Your task to perform on an android device: Open the Play Movies app and select the watchlist tab. Image 0: 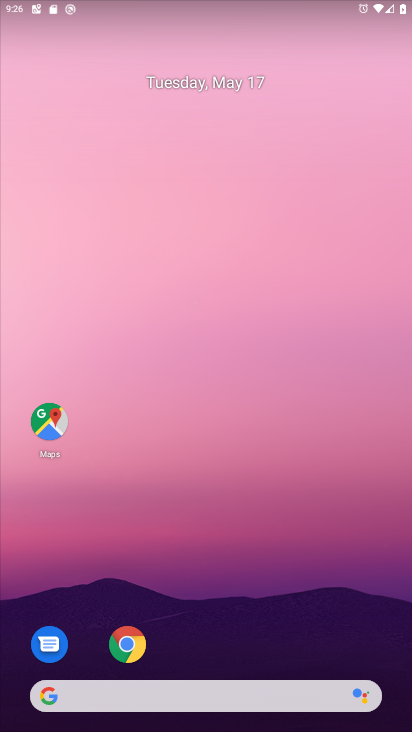
Step 0: drag from (209, 647) to (269, 34)
Your task to perform on an android device: Open the Play Movies app and select the watchlist tab. Image 1: 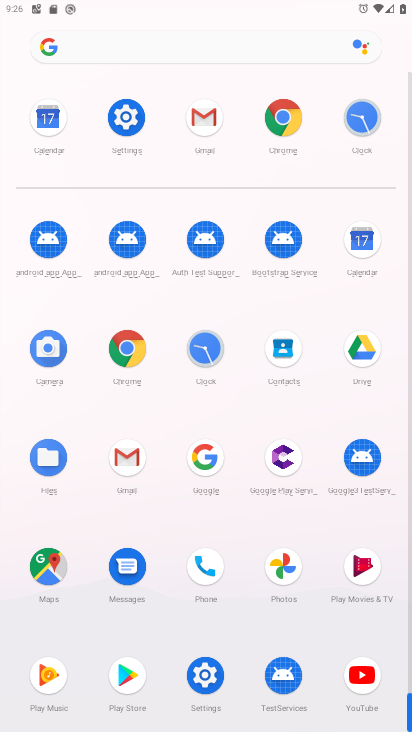
Step 1: click (360, 565)
Your task to perform on an android device: Open the Play Movies app and select the watchlist tab. Image 2: 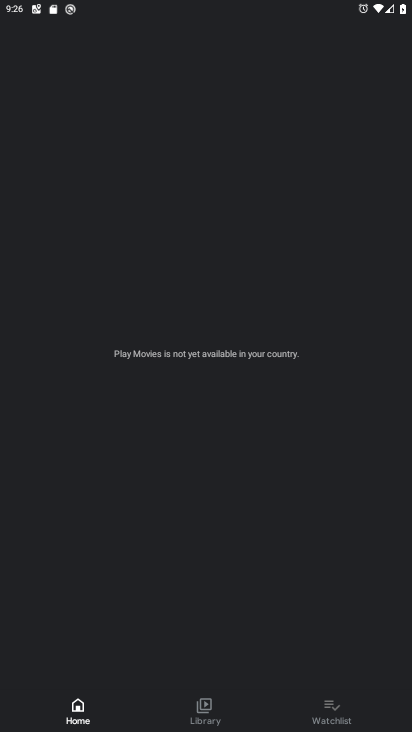
Step 2: click (331, 703)
Your task to perform on an android device: Open the Play Movies app and select the watchlist tab. Image 3: 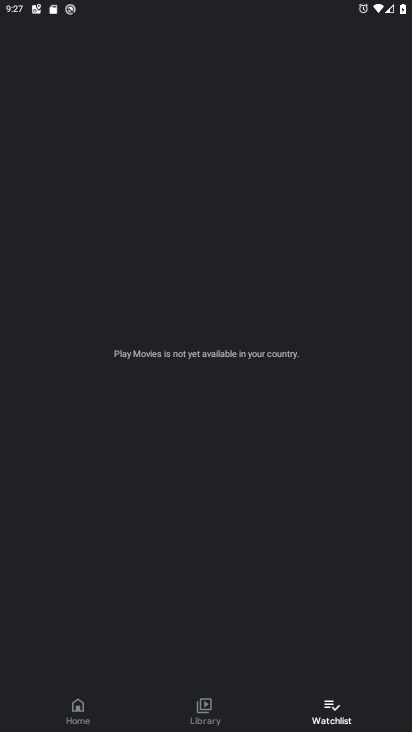
Step 3: task complete